Your task to perform on an android device: turn off location history Image 0: 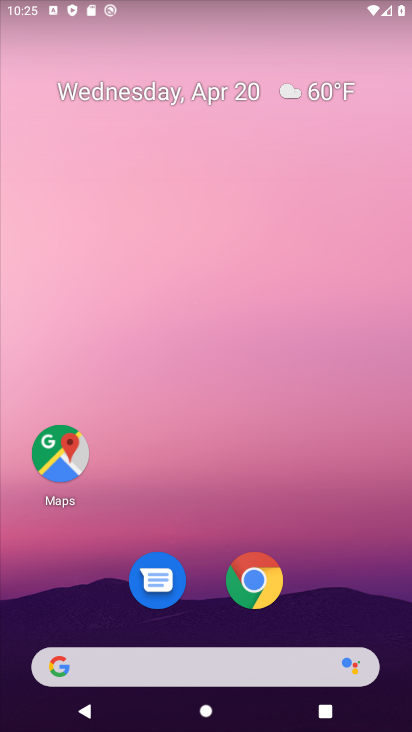
Step 0: drag from (183, 655) to (183, 90)
Your task to perform on an android device: turn off location history Image 1: 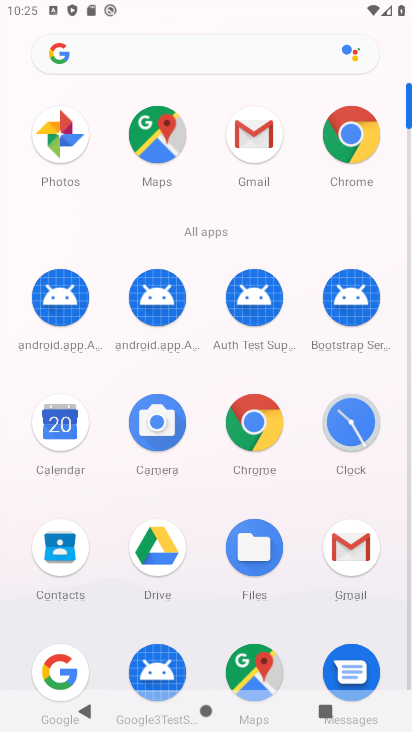
Step 1: drag from (213, 599) to (200, 188)
Your task to perform on an android device: turn off location history Image 2: 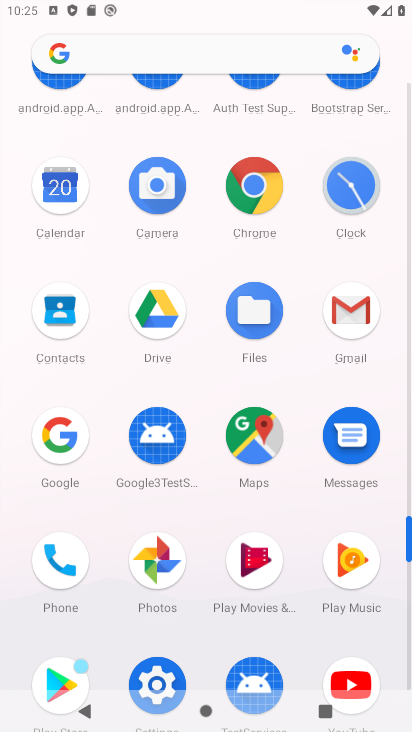
Step 2: click (148, 670)
Your task to perform on an android device: turn off location history Image 3: 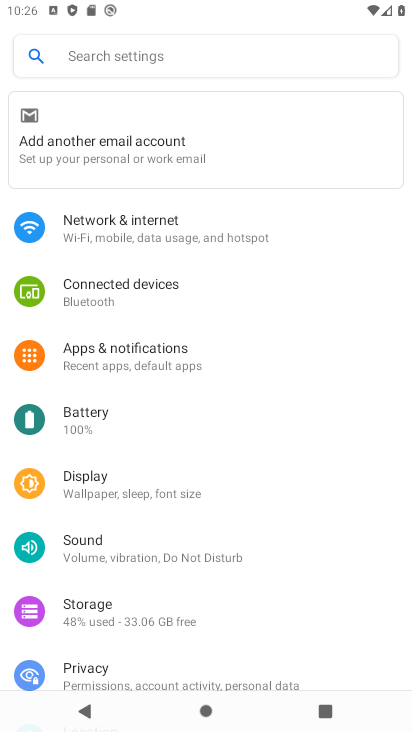
Step 3: drag from (120, 578) to (96, 171)
Your task to perform on an android device: turn off location history Image 4: 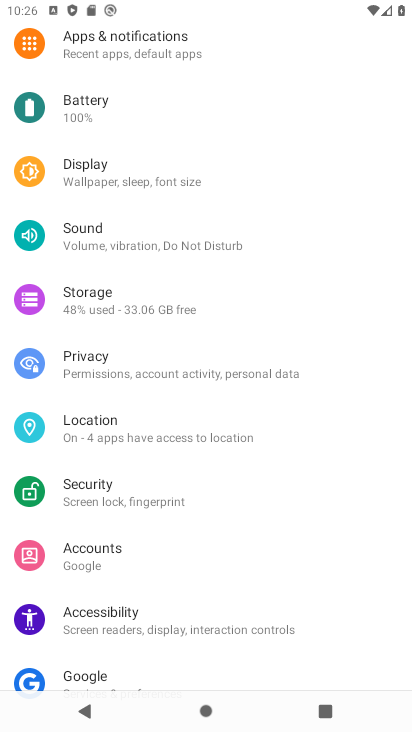
Step 4: click (95, 445)
Your task to perform on an android device: turn off location history Image 5: 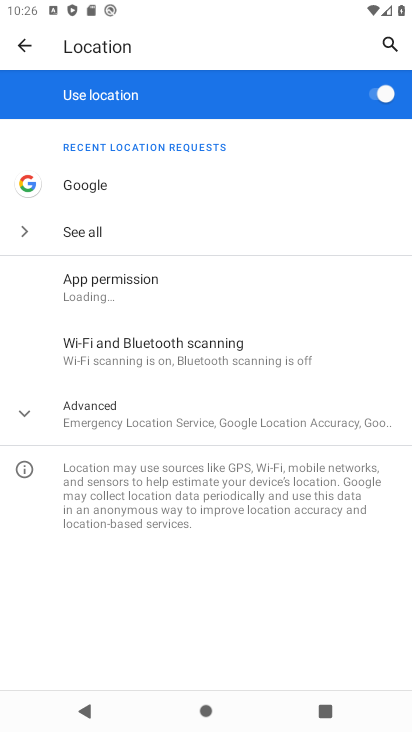
Step 5: click (133, 422)
Your task to perform on an android device: turn off location history Image 6: 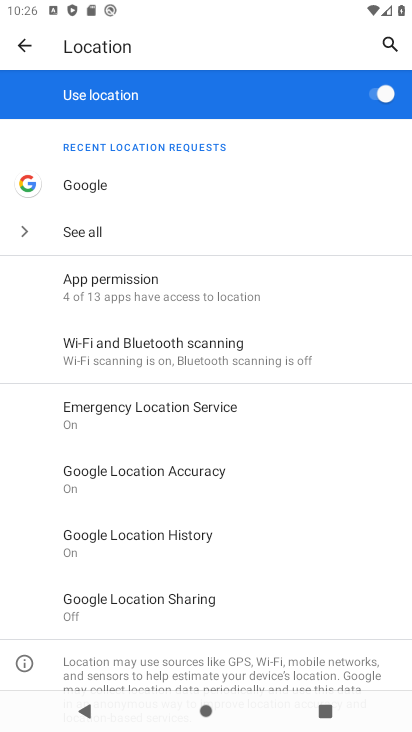
Step 6: click (186, 547)
Your task to perform on an android device: turn off location history Image 7: 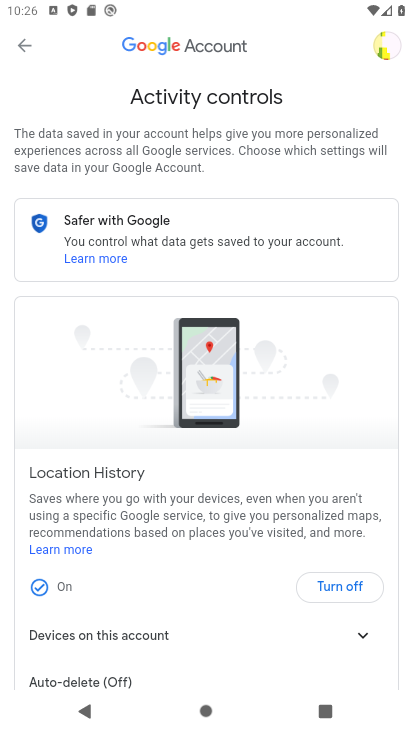
Step 7: click (367, 580)
Your task to perform on an android device: turn off location history Image 8: 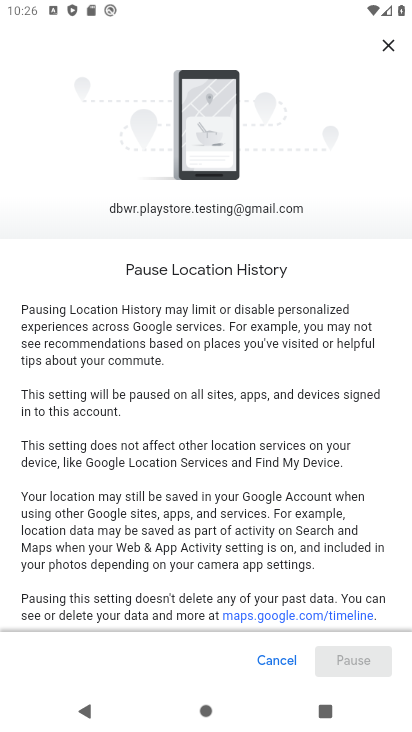
Step 8: drag from (333, 582) to (328, 117)
Your task to perform on an android device: turn off location history Image 9: 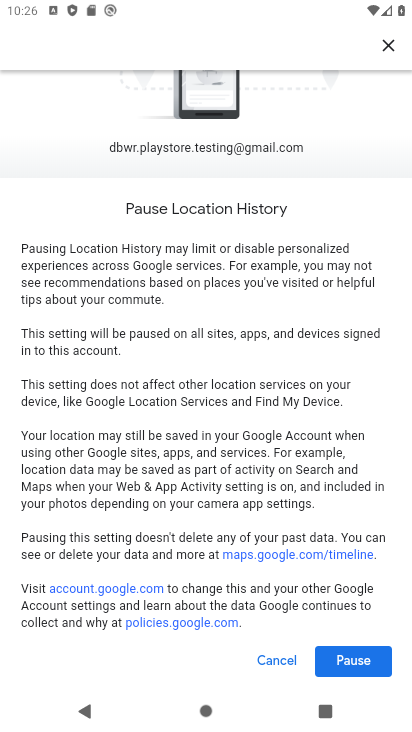
Step 9: click (377, 656)
Your task to perform on an android device: turn off location history Image 10: 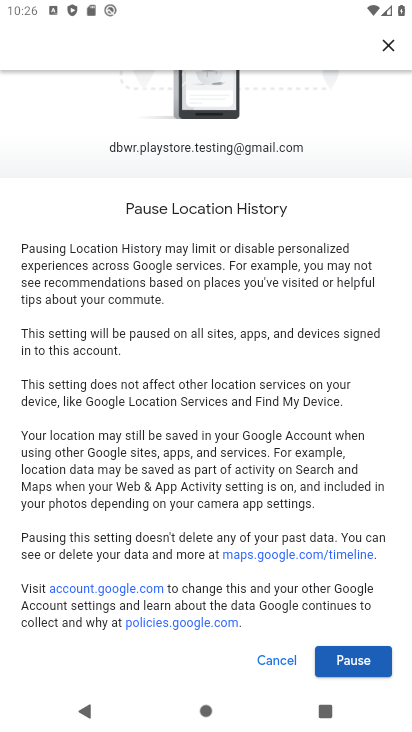
Step 10: click (377, 656)
Your task to perform on an android device: turn off location history Image 11: 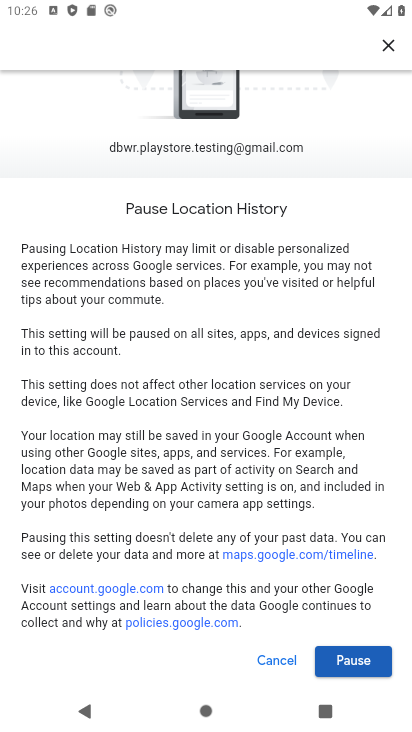
Step 11: click (377, 656)
Your task to perform on an android device: turn off location history Image 12: 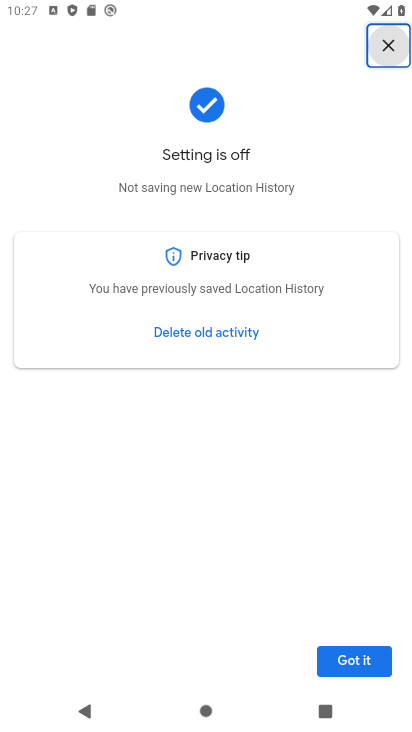
Step 12: click (377, 656)
Your task to perform on an android device: turn off location history Image 13: 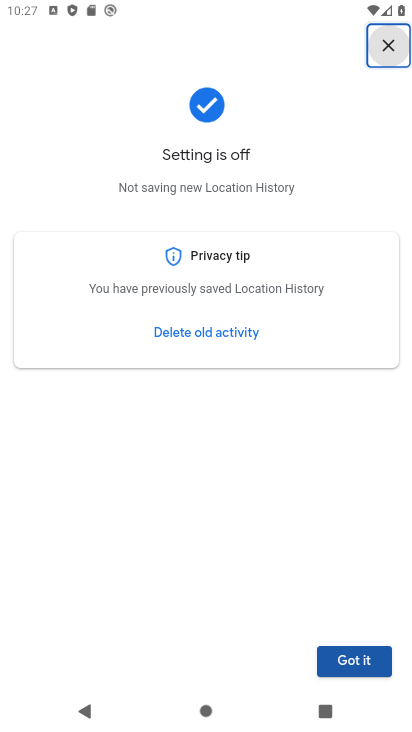
Step 13: task complete